Your task to perform on an android device: Go to Yahoo.com Image 0: 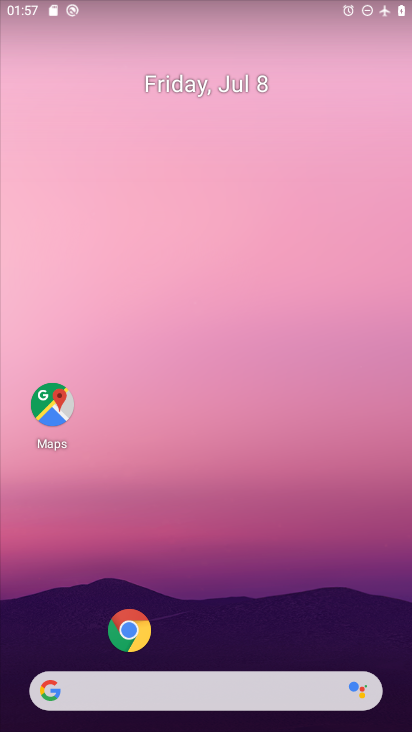
Step 0: press home button
Your task to perform on an android device: Go to Yahoo.com Image 1: 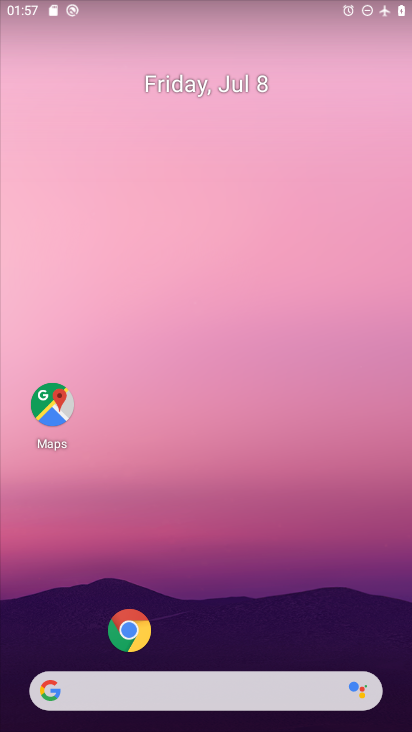
Step 1: drag from (324, 626) to (344, 46)
Your task to perform on an android device: Go to Yahoo.com Image 2: 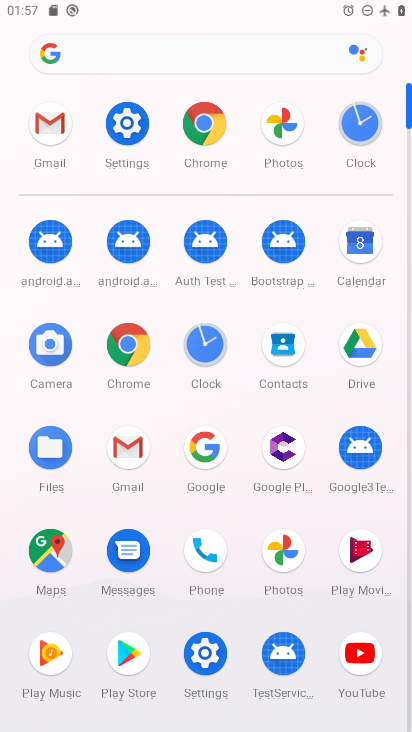
Step 2: click (121, 335)
Your task to perform on an android device: Go to Yahoo.com Image 3: 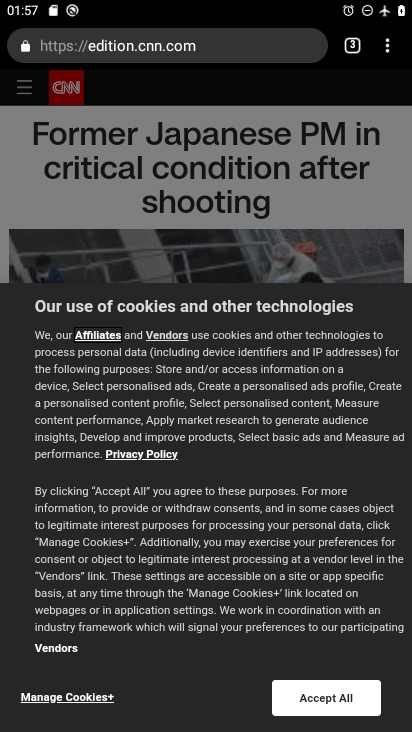
Step 3: drag from (389, 44) to (290, 75)
Your task to perform on an android device: Go to Yahoo.com Image 4: 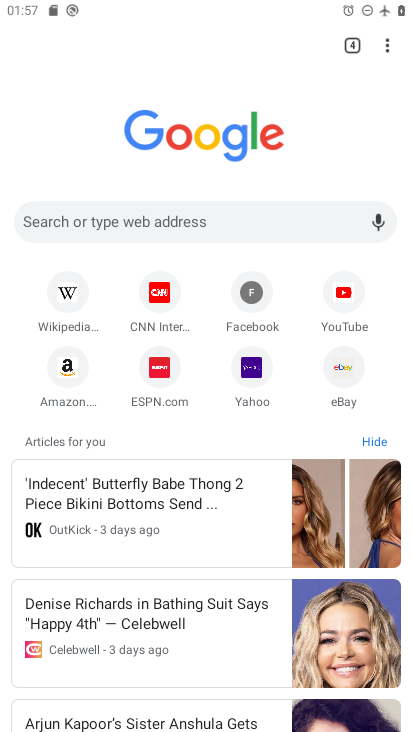
Step 4: click (250, 373)
Your task to perform on an android device: Go to Yahoo.com Image 5: 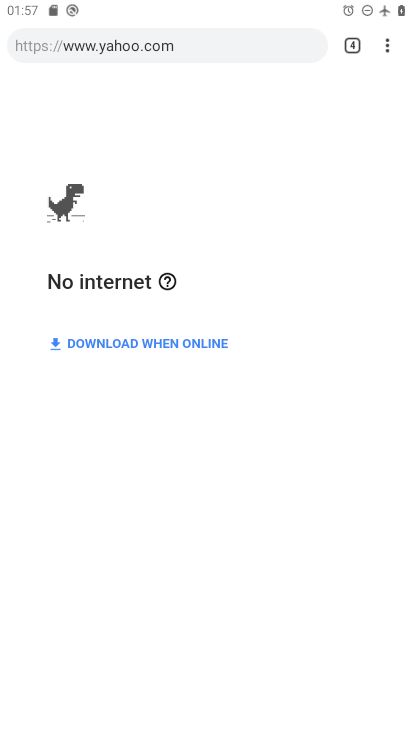
Step 5: task complete